Your task to perform on an android device: Go to battery settings Image 0: 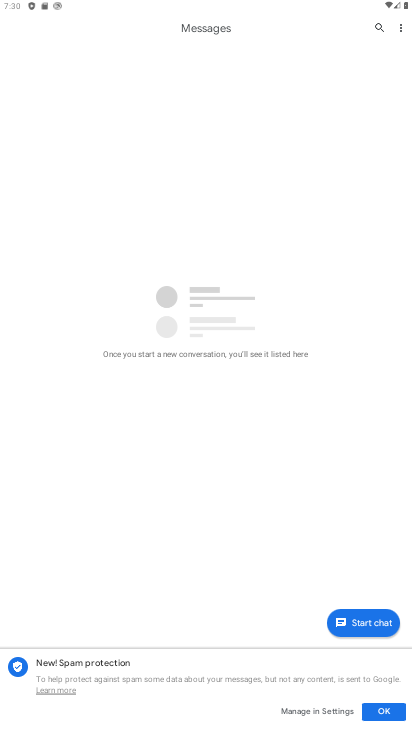
Step 0: press home button
Your task to perform on an android device: Go to battery settings Image 1: 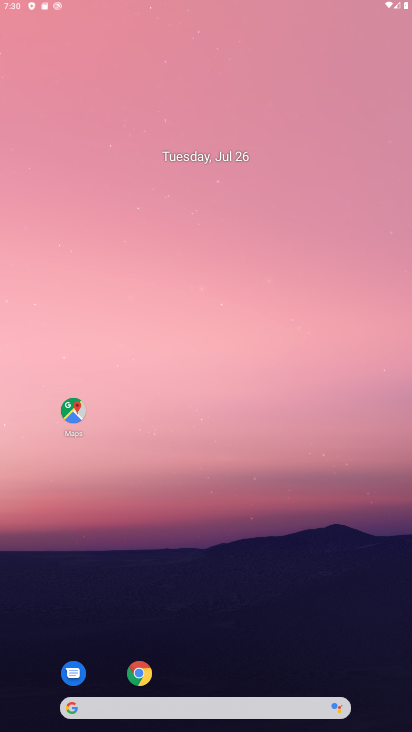
Step 1: drag from (400, 669) to (242, 2)
Your task to perform on an android device: Go to battery settings Image 2: 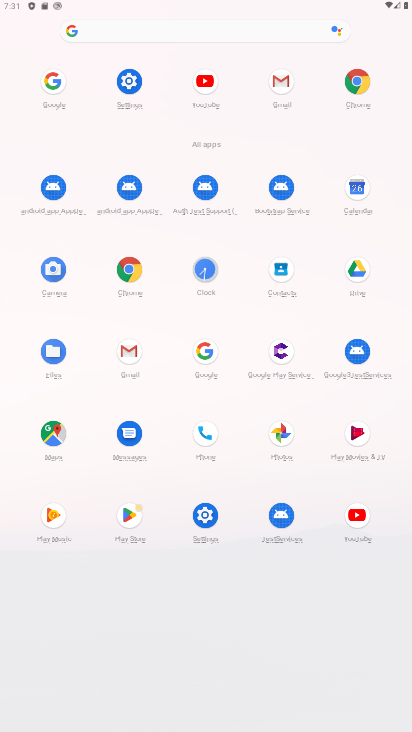
Step 2: click (208, 534)
Your task to perform on an android device: Go to battery settings Image 3: 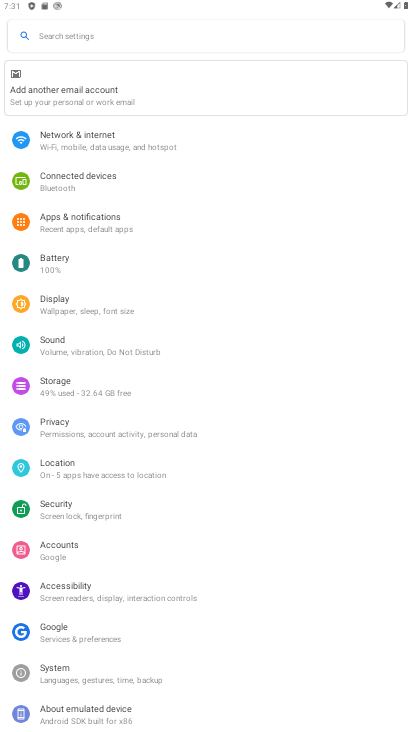
Step 3: click (57, 263)
Your task to perform on an android device: Go to battery settings Image 4: 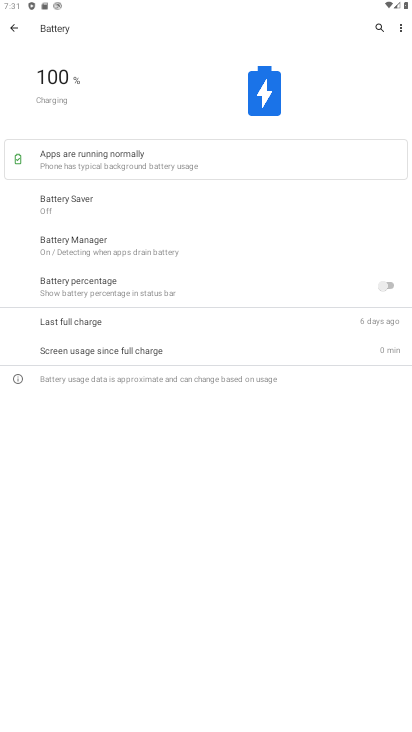
Step 4: task complete